Your task to perform on an android device: find snoozed emails in the gmail app Image 0: 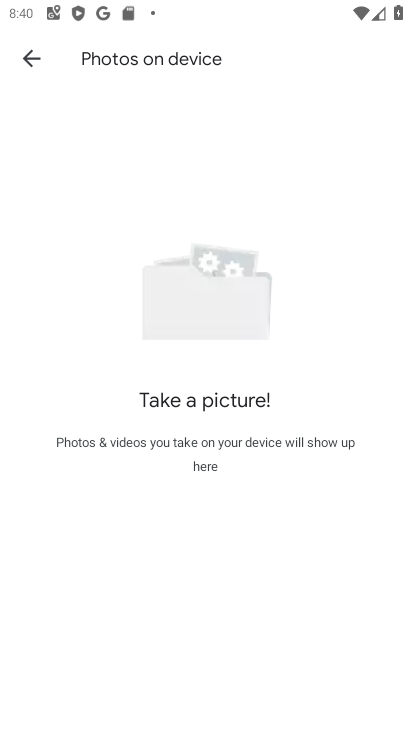
Step 0: press home button
Your task to perform on an android device: find snoozed emails in the gmail app Image 1: 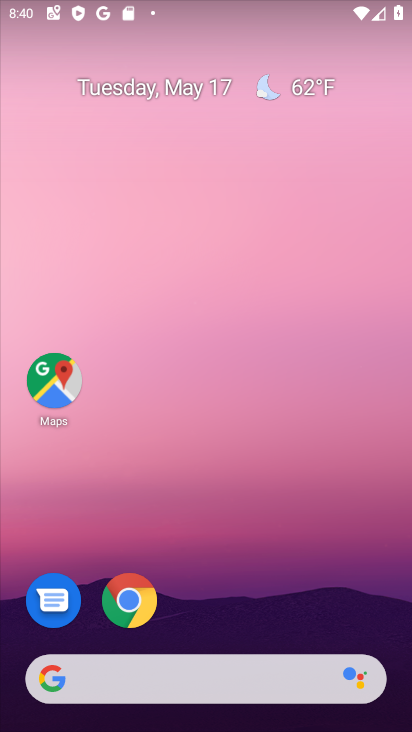
Step 1: drag from (204, 726) to (189, 251)
Your task to perform on an android device: find snoozed emails in the gmail app Image 2: 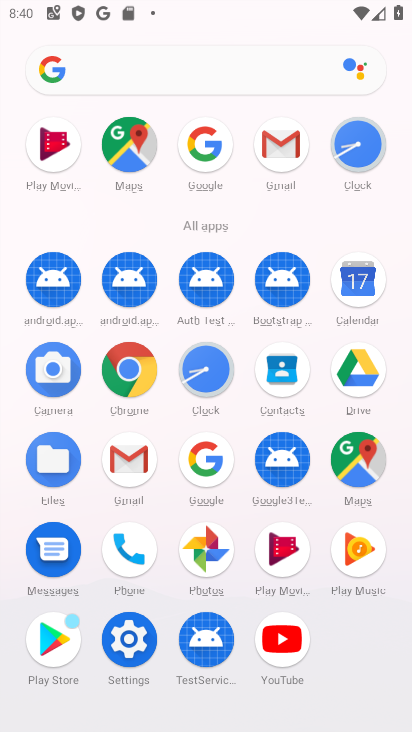
Step 2: click (133, 459)
Your task to perform on an android device: find snoozed emails in the gmail app Image 3: 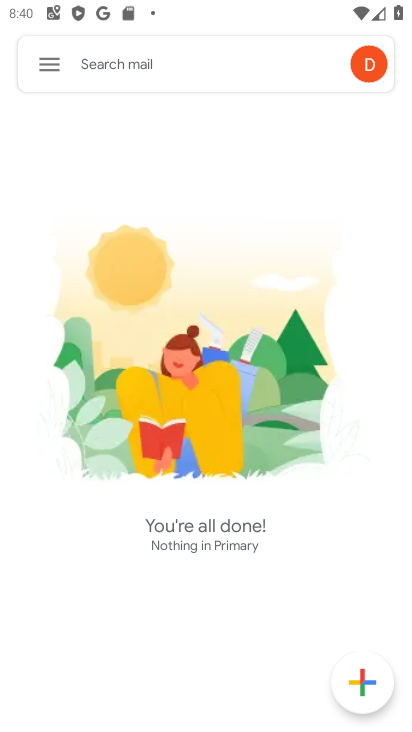
Step 3: click (42, 63)
Your task to perform on an android device: find snoozed emails in the gmail app Image 4: 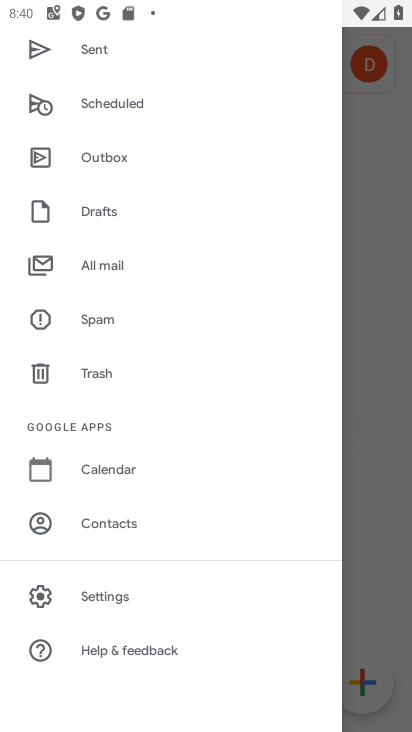
Step 4: drag from (147, 214) to (145, 331)
Your task to perform on an android device: find snoozed emails in the gmail app Image 5: 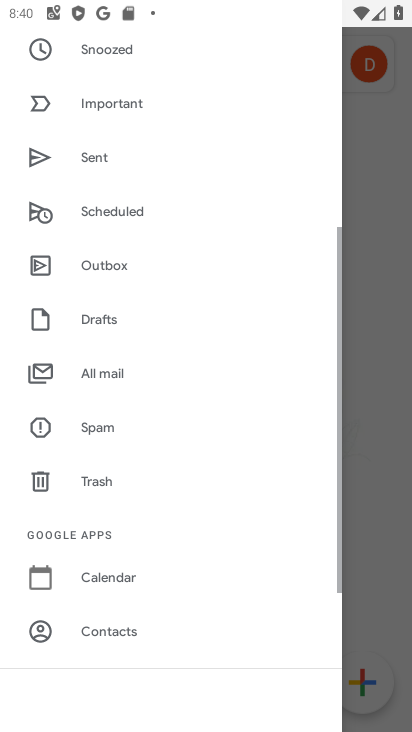
Step 5: drag from (137, 419) to (136, 459)
Your task to perform on an android device: find snoozed emails in the gmail app Image 6: 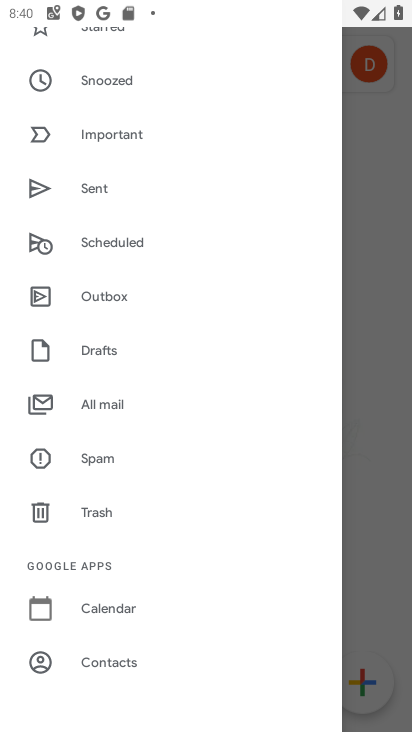
Step 6: click (101, 84)
Your task to perform on an android device: find snoozed emails in the gmail app Image 7: 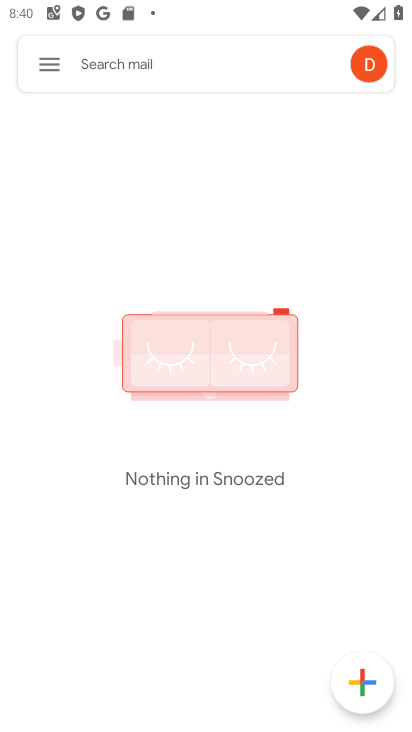
Step 7: task complete